Your task to perform on an android device: see creations saved in the google photos Image 0: 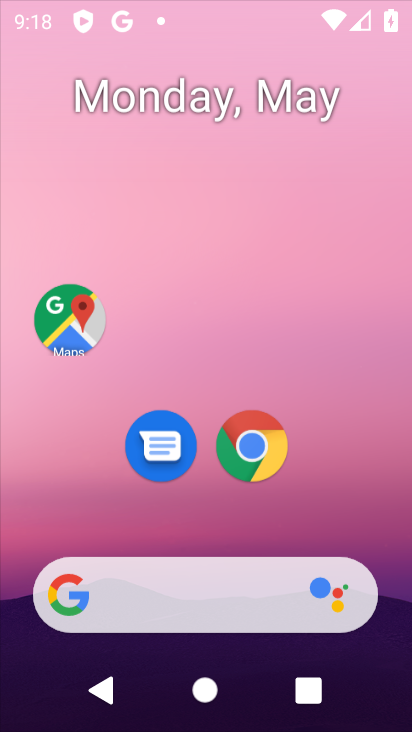
Step 0: drag from (74, 533) to (201, 112)
Your task to perform on an android device: see creations saved in the google photos Image 1: 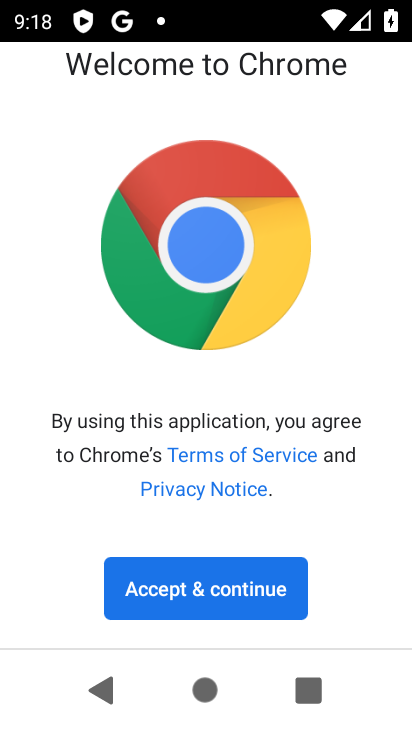
Step 1: press home button
Your task to perform on an android device: see creations saved in the google photos Image 2: 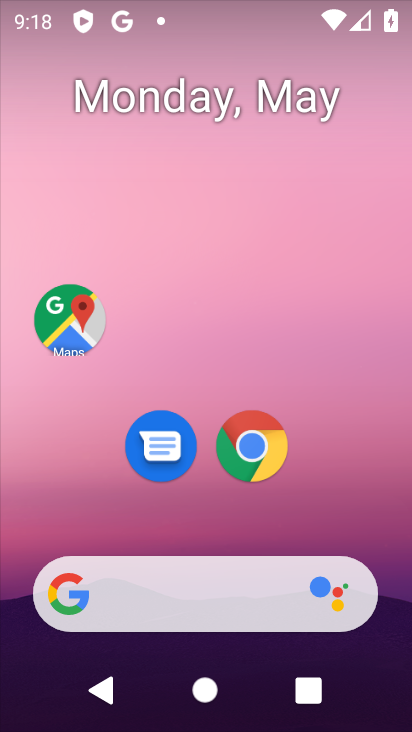
Step 2: drag from (70, 537) to (245, 101)
Your task to perform on an android device: see creations saved in the google photos Image 3: 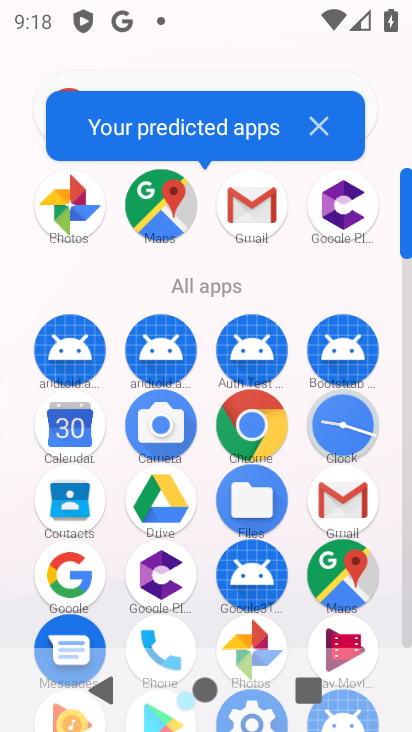
Step 3: drag from (261, 625) to (296, 292)
Your task to perform on an android device: see creations saved in the google photos Image 4: 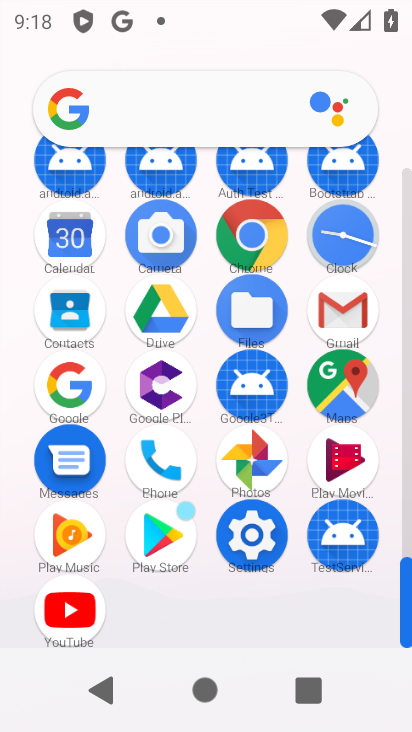
Step 4: click (258, 460)
Your task to perform on an android device: see creations saved in the google photos Image 5: 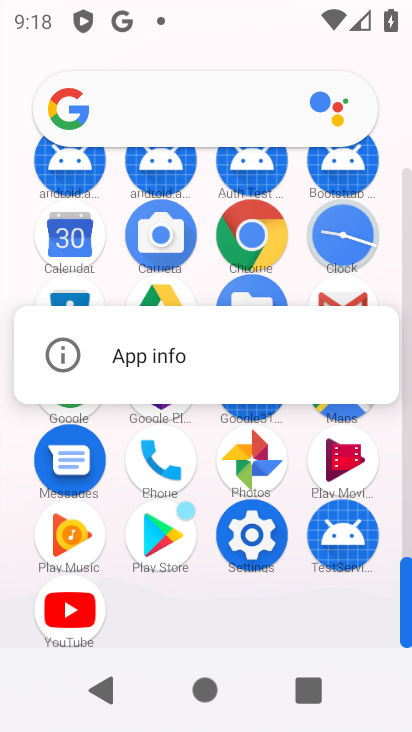
Step 5: click (263, 457)
Your task to perform on an android device: see creations saved in the google photos Image 6: 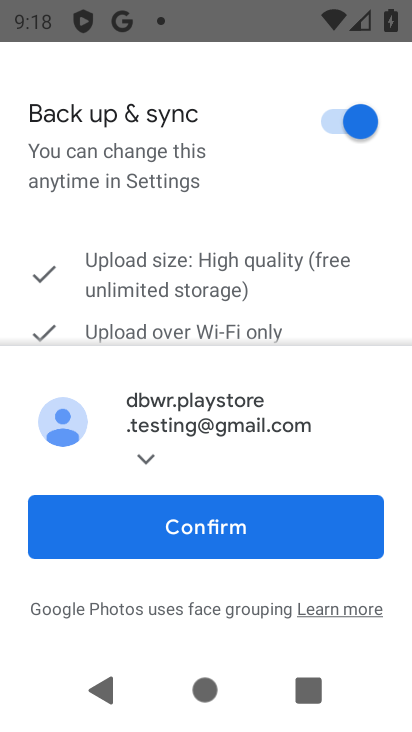
Step 6: click (247, 527)
Your task to perform on an android device: see creations saved in the google photos Image 7: 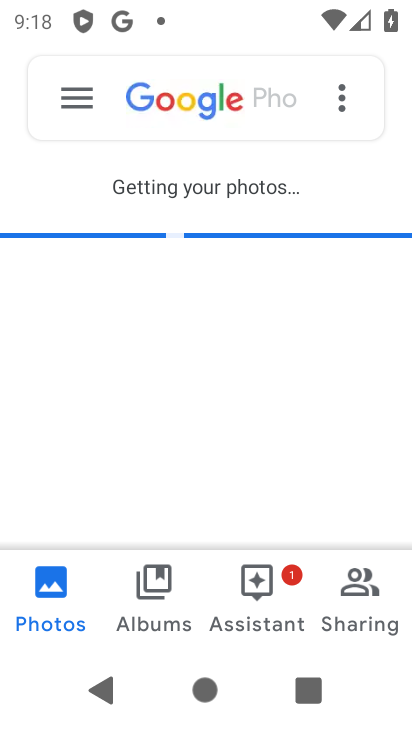
Step 7: click (241, 119)
Your task to perform on an android device: see creations saved in the google photos Image 8: 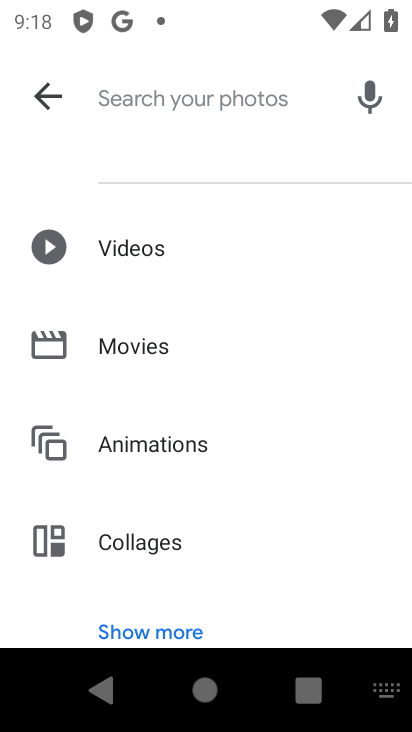
Step 8: drag from (188, 568) to (261, 266)
Your task to perform on an android device: see creations saved in the google photos Image 9: 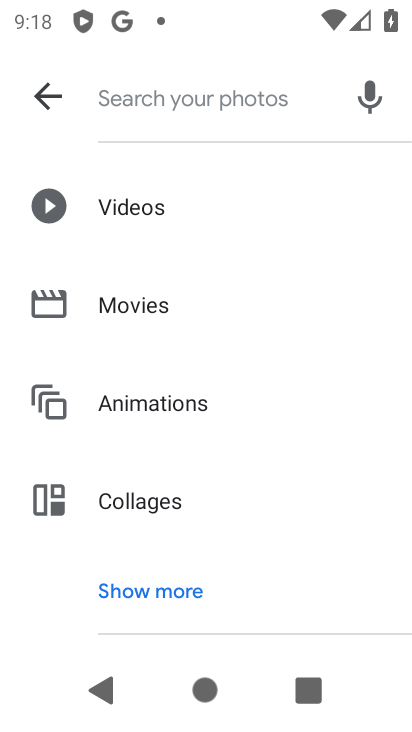
Step 9: click (154, 592)
Your task to perform on an android device: see creations saved in the google photos Image 10: 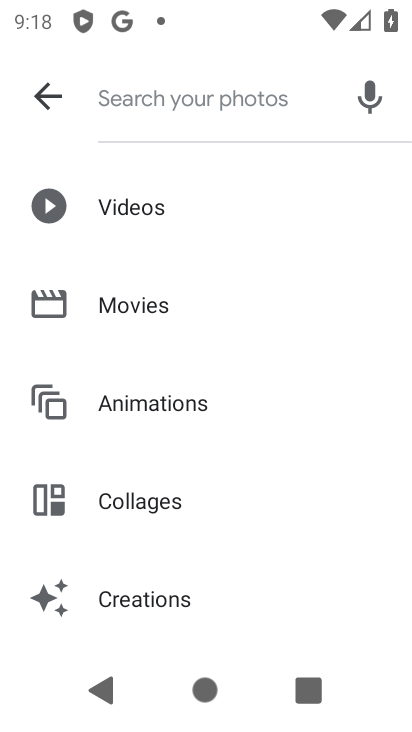
Step 10: click (138, 592)
Your task to perform on an android device: see creations saved in the google photos Image 11: 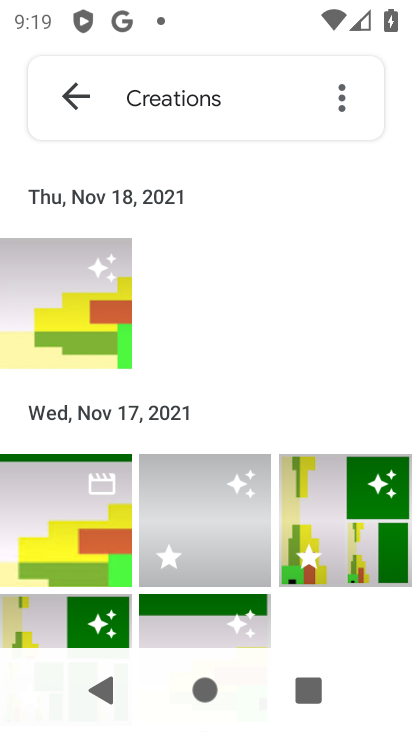
Step 11: task complete